Your task to perform on an android device: delete a single message in the gmail app Image 0: 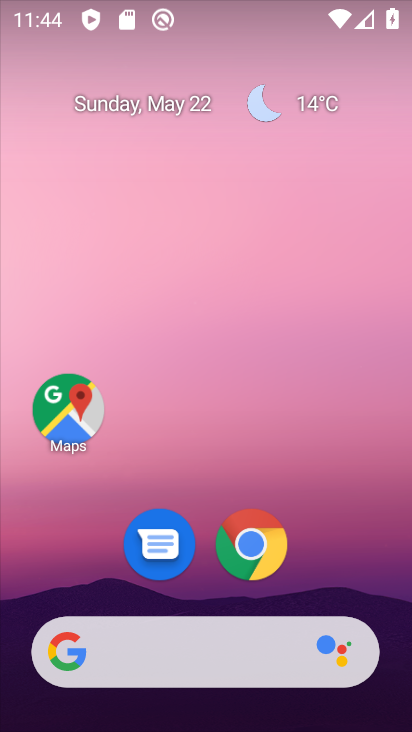
Step 0: drag from (331, 514) to (288, 129)
Your task to perform on an android device: delete a single message in the gmail app Image 1: 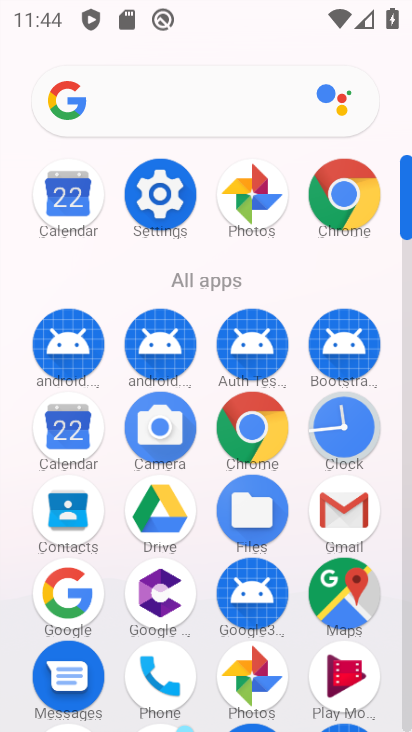
Step 1: click (337, 506)
Your task to perform on an android device: delete a single message in the gmail app Image 2: 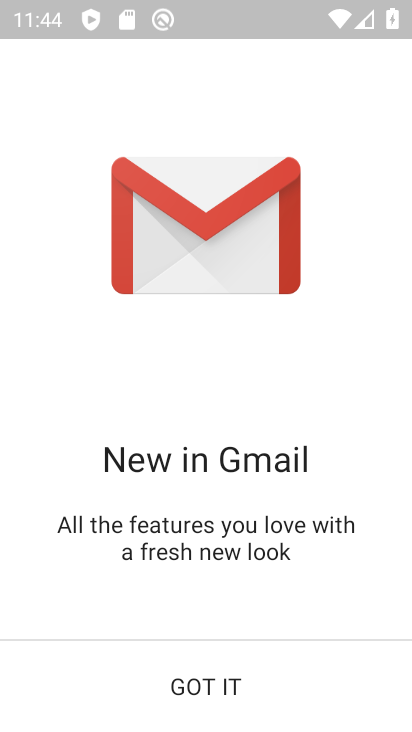
Step 2: click (207, 670)
Your task to perform on an android device: delete a single message in the gmail app Image 3: 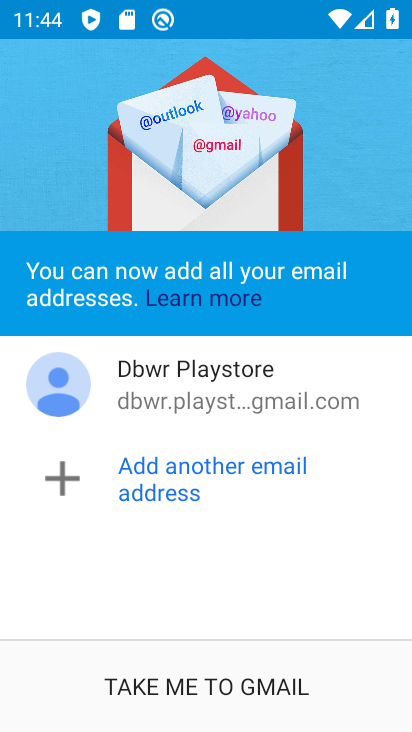
Step 3: click (192, 684)
Your task to perform on an android device: delete a single message in the gmail app Image 4: 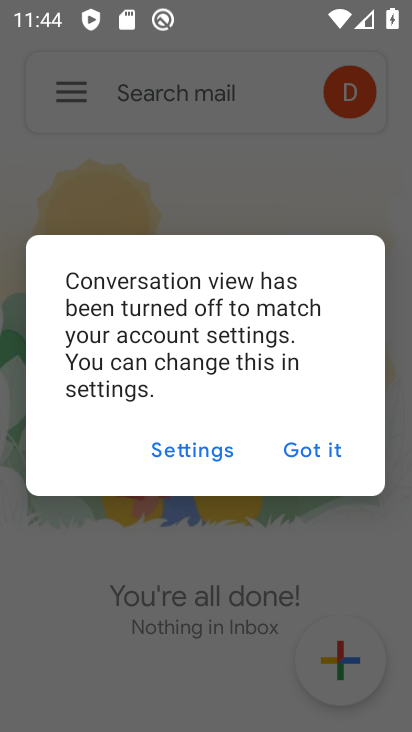
Step 4: click (301, 463)
Your task to perform on an android device: delete a single message in the gmail app Image 5: 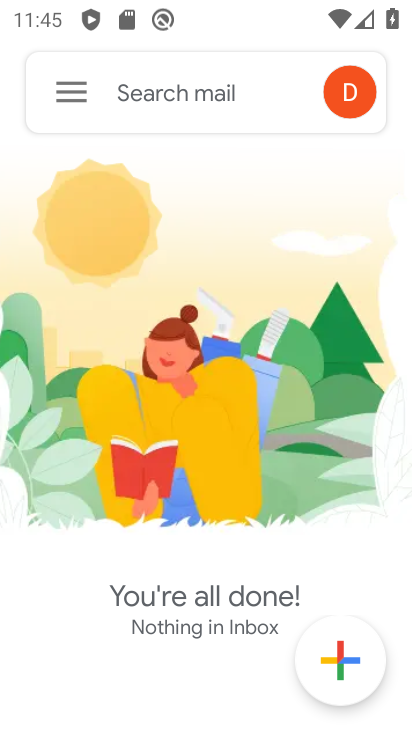
Step 5: click (69, 93)
Your task to perform on an android device: delete a single message in the gmail app Image 6: 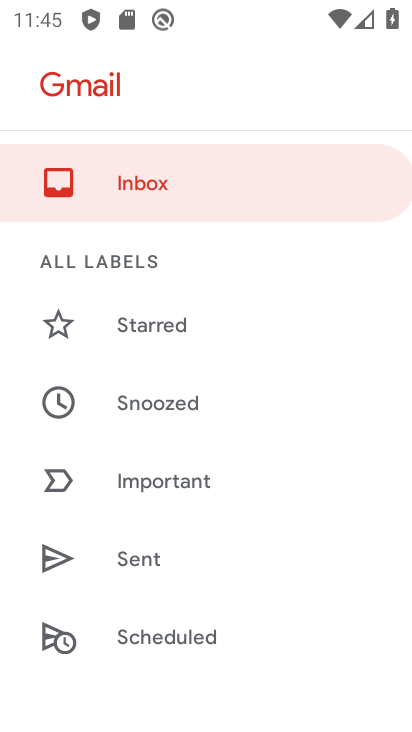
Step 6: drag from (151, 533) to (242, 1)
Your task to perform on an android device: delete a single message in the gmail app Image 7: 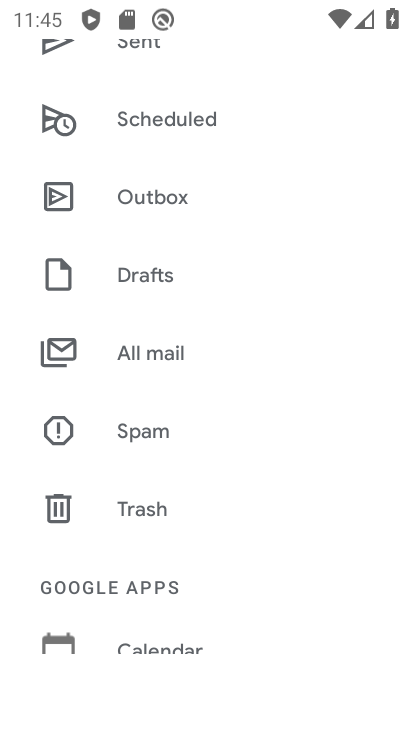
Step 7: click (157, 342)
Your task to perform on an android device: delete a single message in the gmail app Image 8: 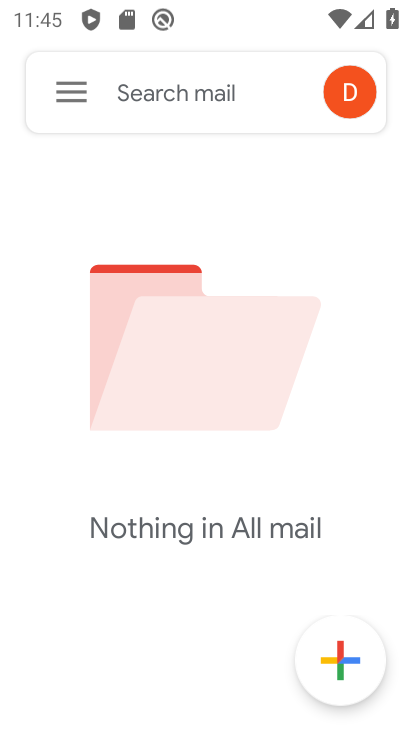
Step 8: task complete